Your task to perform on an android device: Toggle the flashlight Image 0: 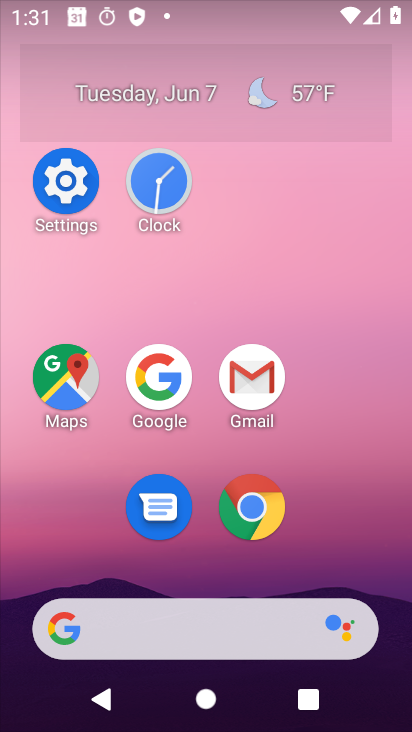
Step 0: drag from (292, 0) to (257, 581)
Your task to perform on an android device: Toggle the flashlight Image 1: 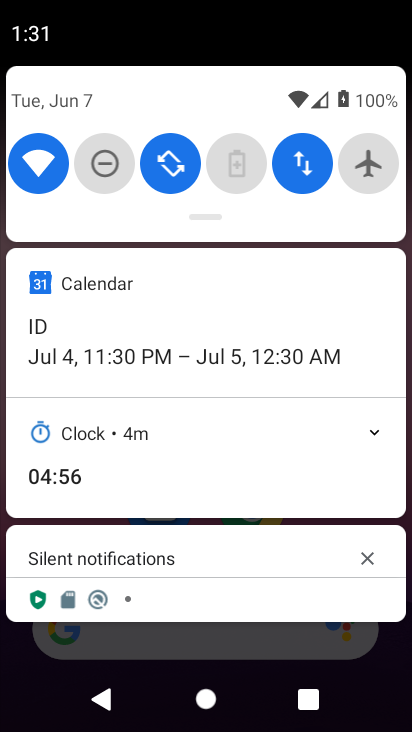
Step 1: task complete